Your task to perform on an android device: Go to Yahoo.com Image 0: 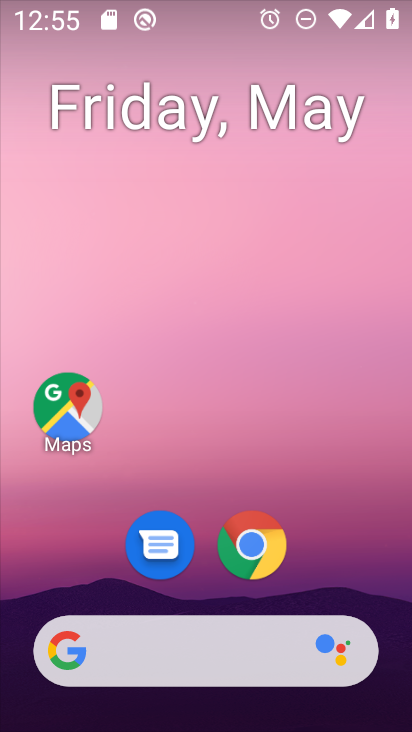
Step 0: click (254, 540)
Your task to perform on an android device: Go to Yahoo.com Image 1: 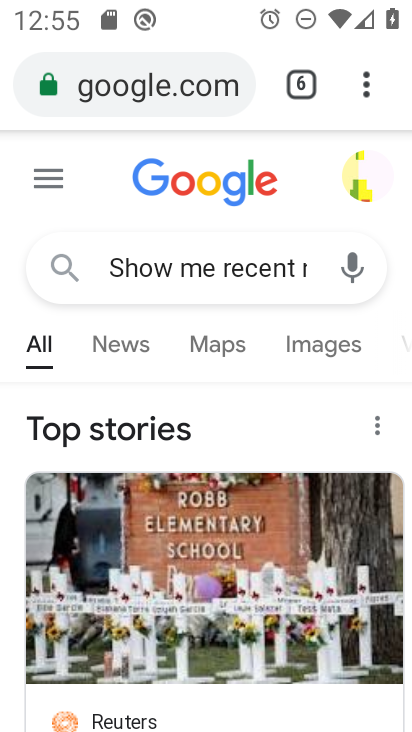
Step 1: click (363, 86)
Your task to perform on an android device: Go to Yahoo.com Image 2: 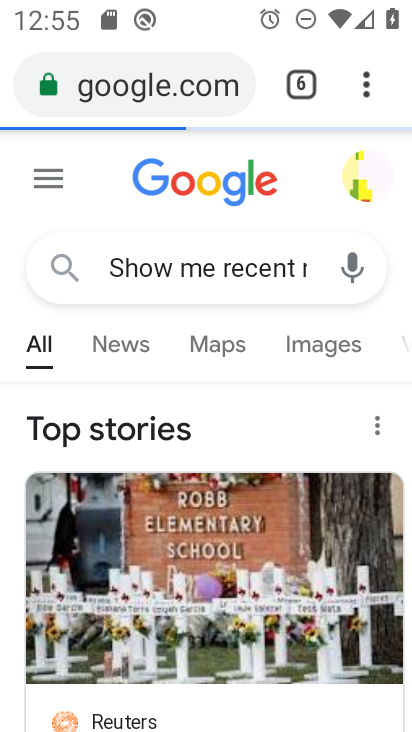
Step 2: click (355, 77)
Your task to perform on an android device: Go to Yahoo.com Image 3: 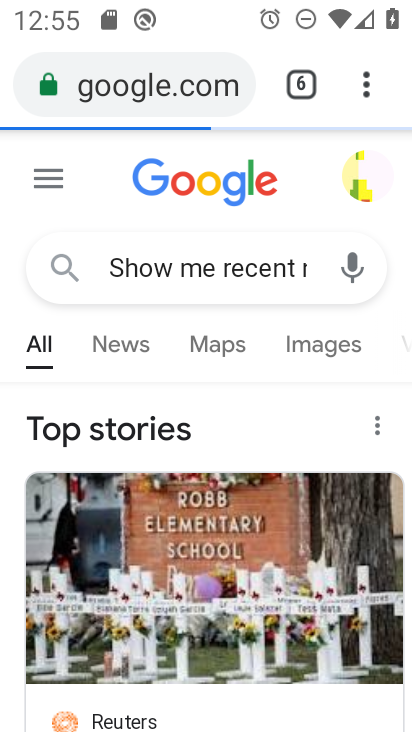
Step 3: click (360, 85)
Your task to perform on an android device: Go to Yahoo.com Image 4: 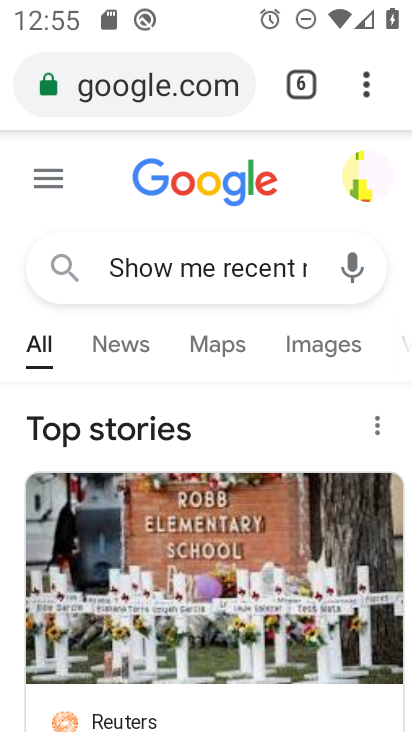
Step 4: click (370, 88)
Your task to perform on an android device: Go to Yahoo.com Image 5: 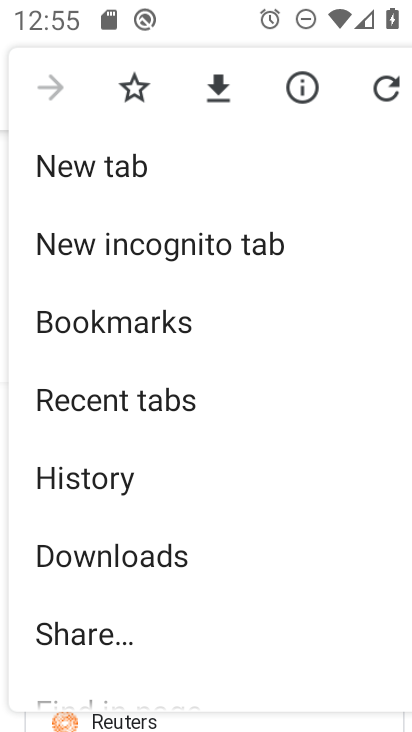
Step 5: click (120, 166)
Your task to perform on an android device: Go to Yahoo.com Image 6: 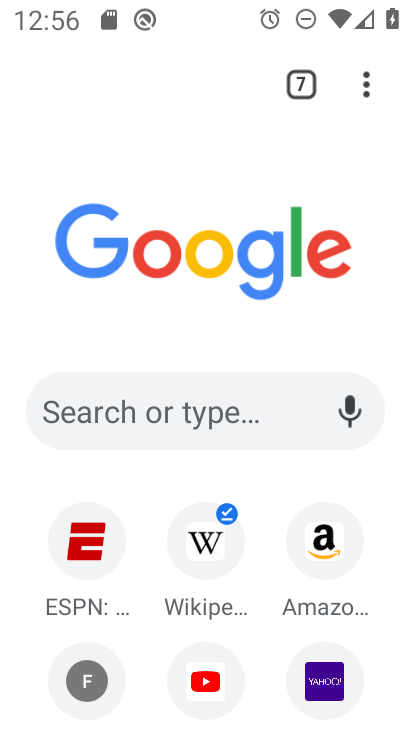
Step 6: click (305, 661)
Your task to perform on an android device: Go to Yahoo.com Image 7: 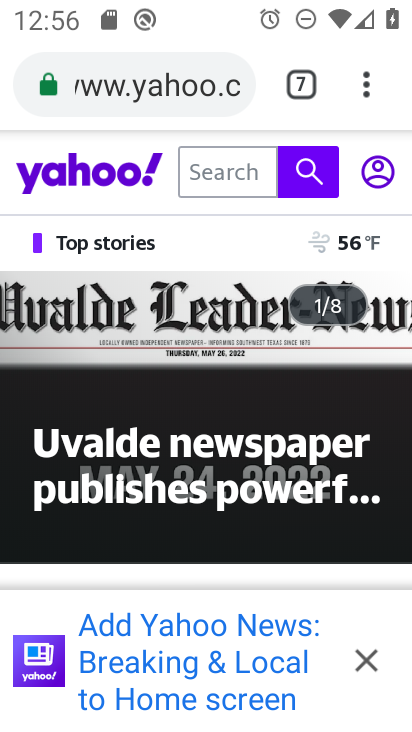
Step 7: task complete